Your task to perform on an android device: Clear all items from cart on walmart. Image 0: 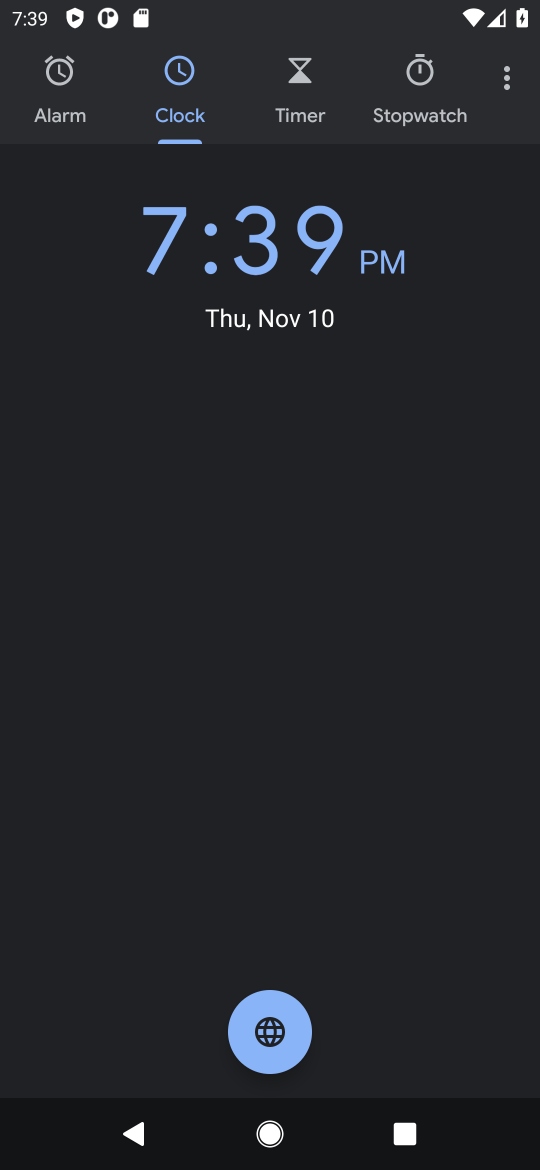
Step 0: press home button
Your task to perform on an android device: Clear all items from cart on walmart. Image 1: 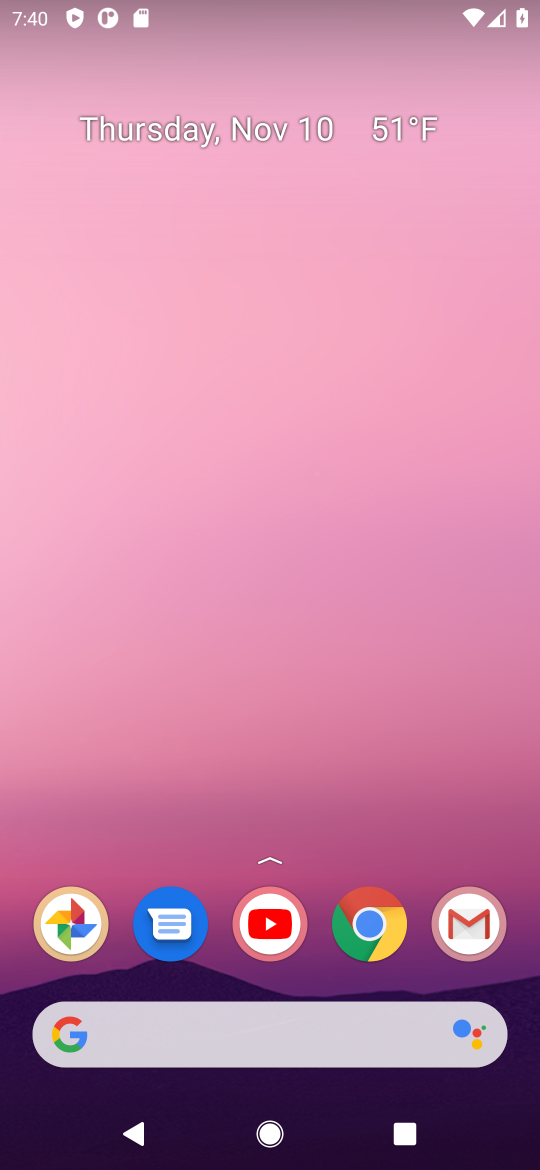
Step 1: click (371, 926)
Your task to perform on an android device: Clear all items from cart on walmart. Image 2: 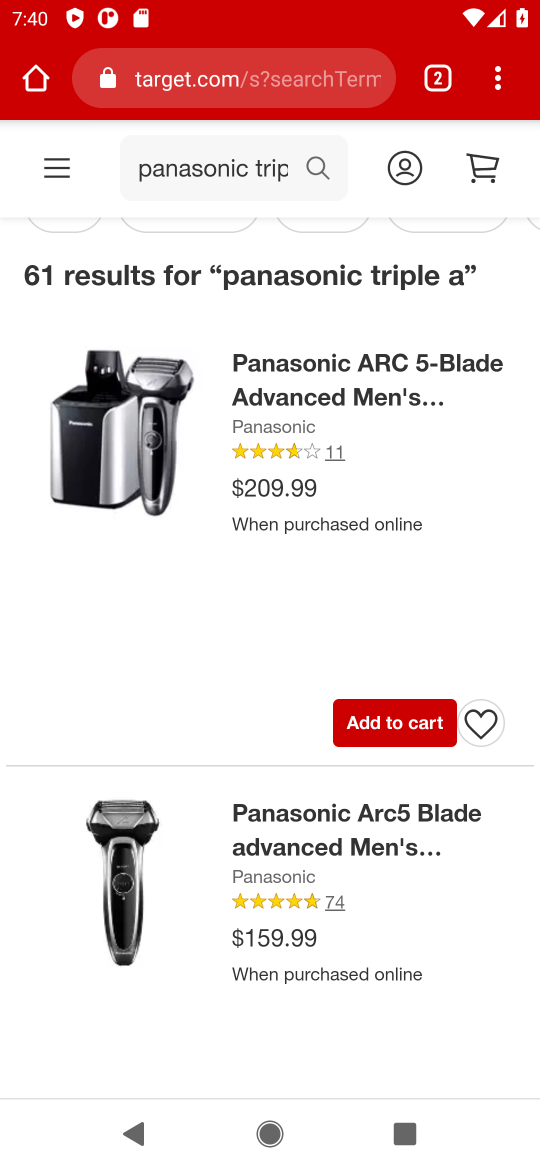
Step 2: click (243, 81)
Your task to perform on an android device: Clear all items from cart on walmart. Image 3: 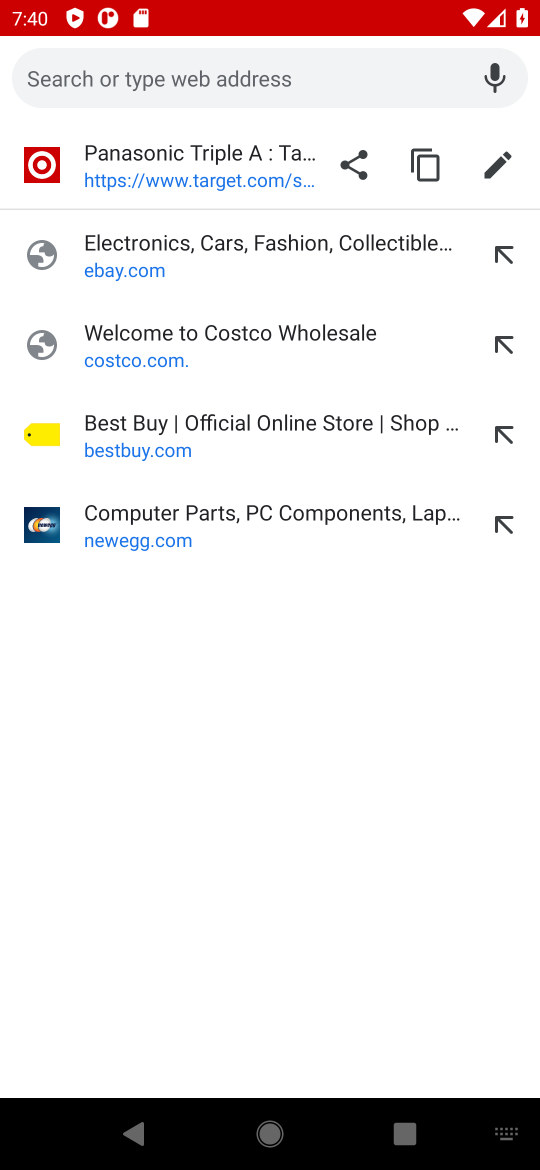
Step 3: type "walmart.com "
Your task to perform on an android device: Clear all items from cart on walmart. Image 4: 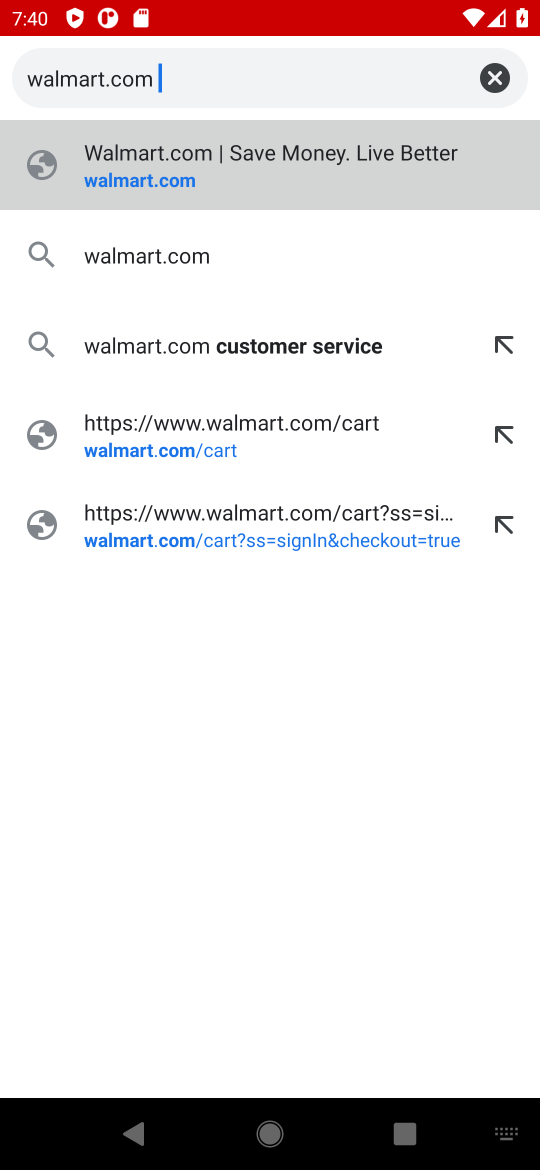
Step 4: click (136, 200)
Your task to perform on an android device: Clear all items from cart on walmart. Image 5: 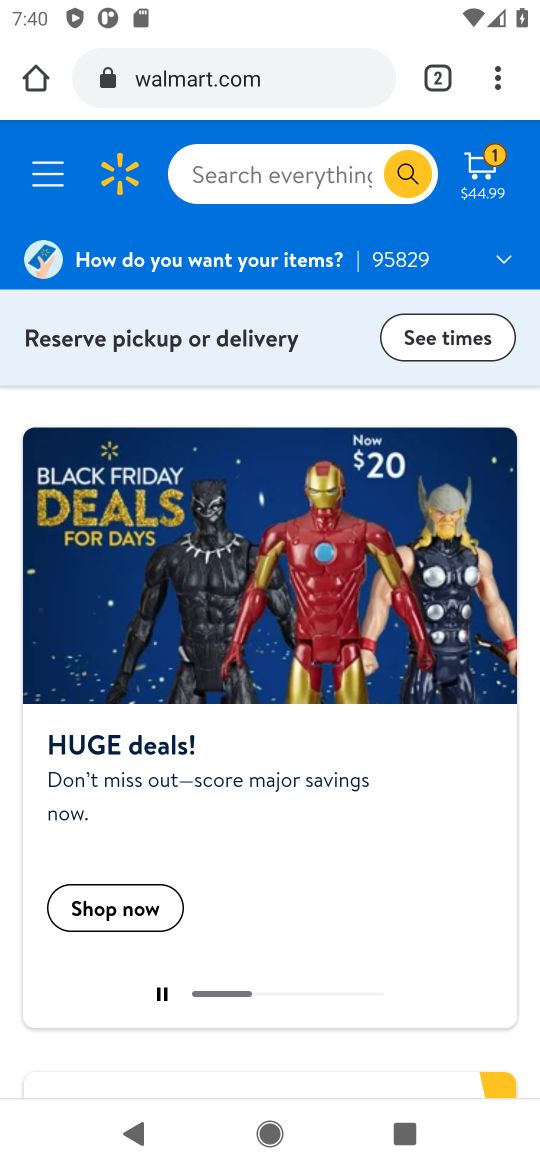
Step 5: click (486, 162)
Your task to perform on an android device: Clear all items from cart on walmart. Image 6: 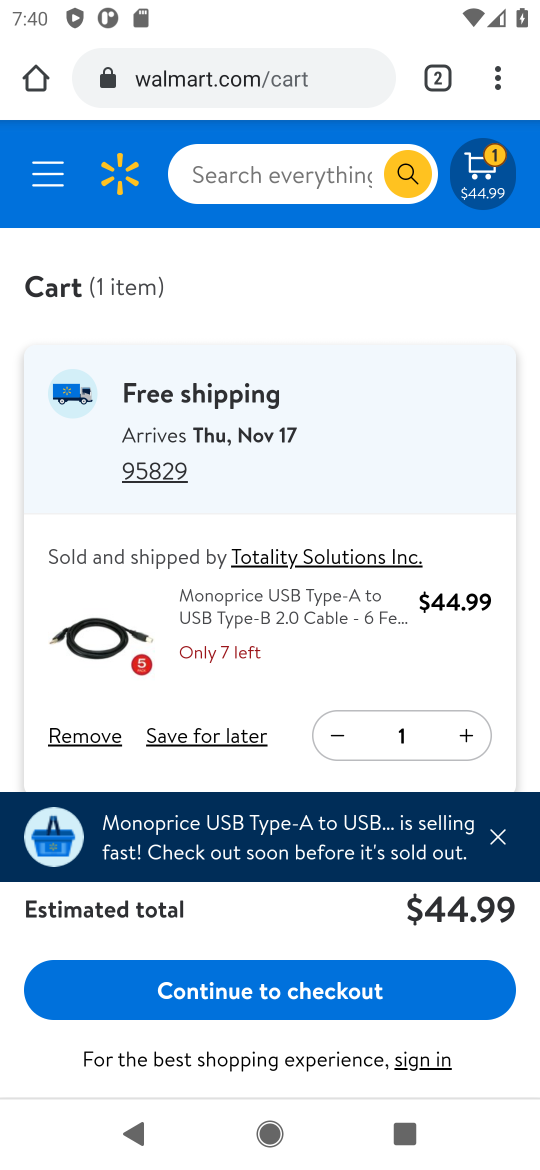
Step 6: click (91, 738)
Your task to perform on an android device: Clear all items from cart on walmart. Image 7: 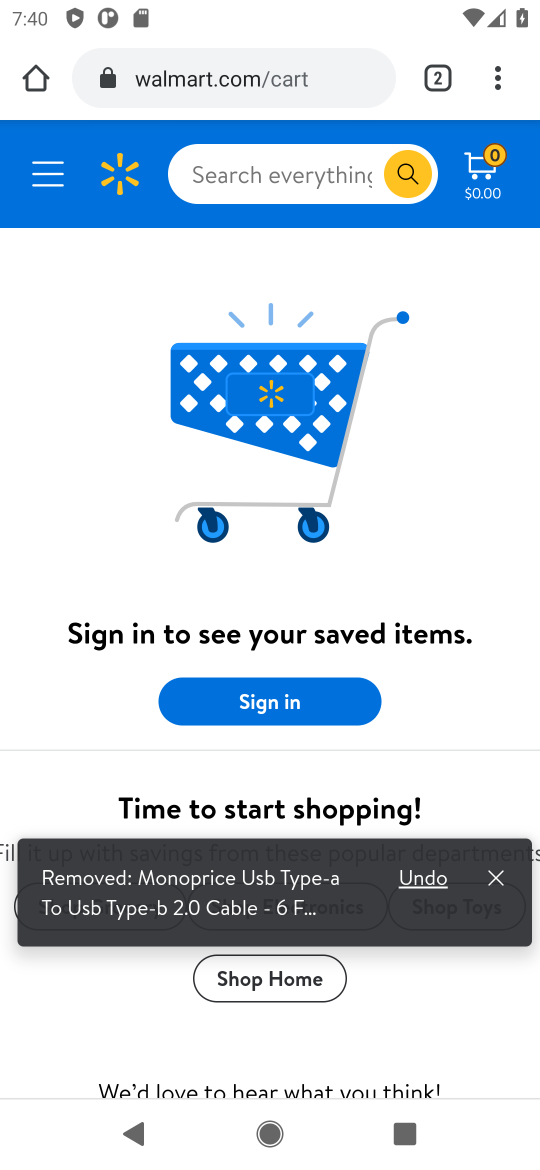
Step 7: task complete